Your task to perform on an android device: snooze an email in the gmail app Image 0: 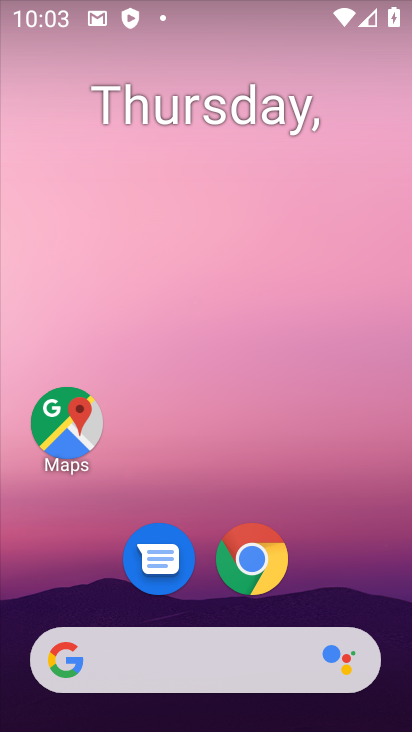
Step 0: drag from (263, 702) to (265, 316)
Your task to perform on an android device: snooze an email in the gmail app Image 1: 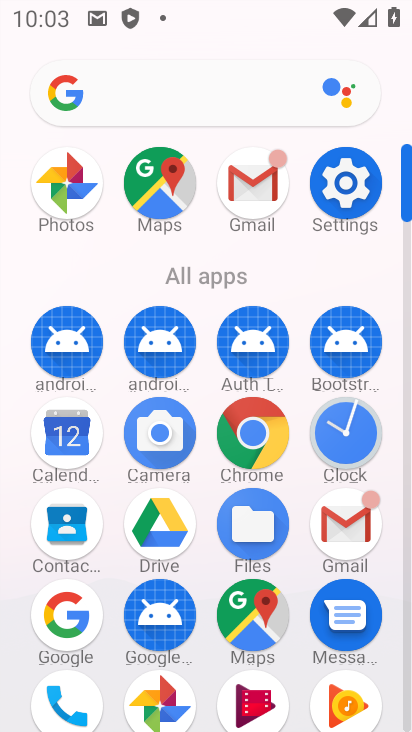
Step 1: click (343, 518)
Your task to perform on an android device: snooze an email in the gmail app Image 2: 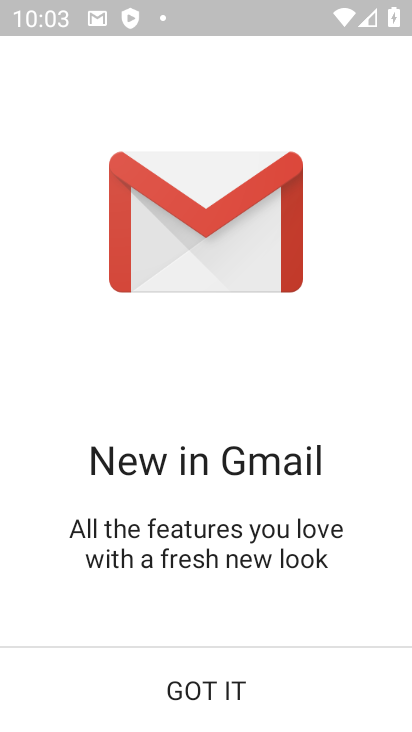
Step 2: click (215, 676)
Your task to perform on an android device: snooze an email in the gmail app Image 3: 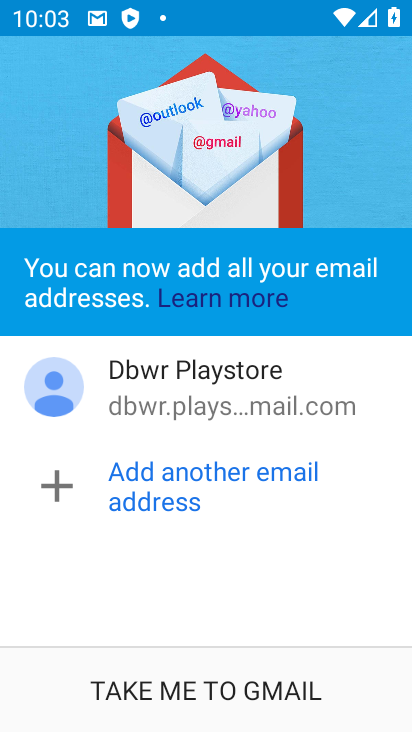
Step 3: click (206, 694)
Your task to perform on an android device: snooze an email in the gmail app Image 4: 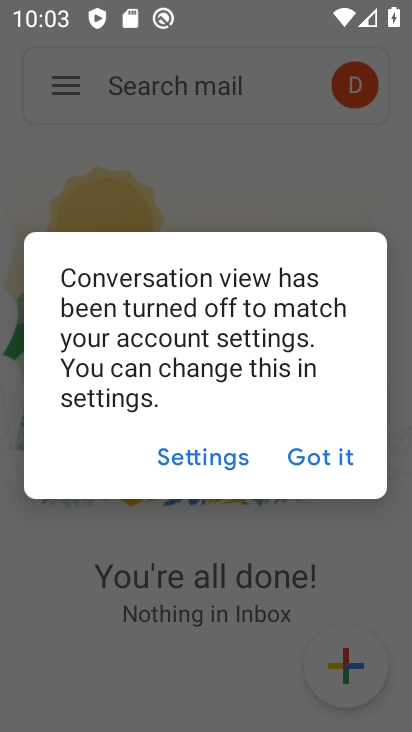
Step 4: click (322, 462)
Your task to perform on an android device: snooze an email in the gmail app Image 5: 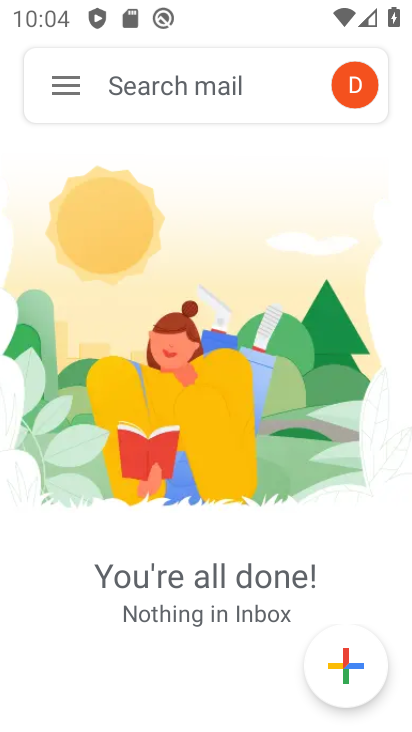
Step 5: click (69, 80)
Your task to perform on an android device: snooze an email in the gmail app Image 6: 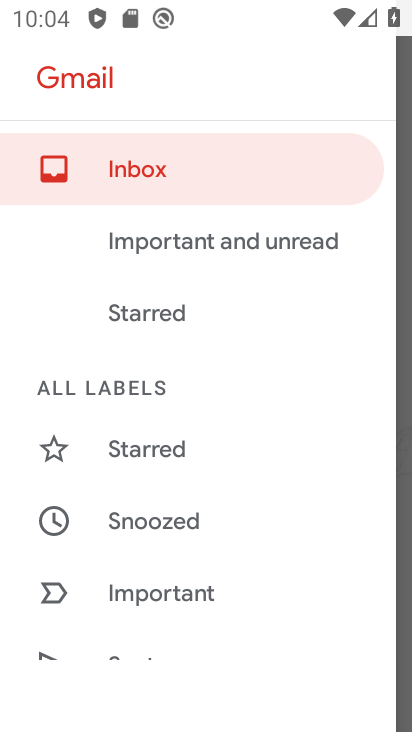
Step 6: click (174, 519)
Your task to perform on an android device: snooze an email in the gmail app Image 7: 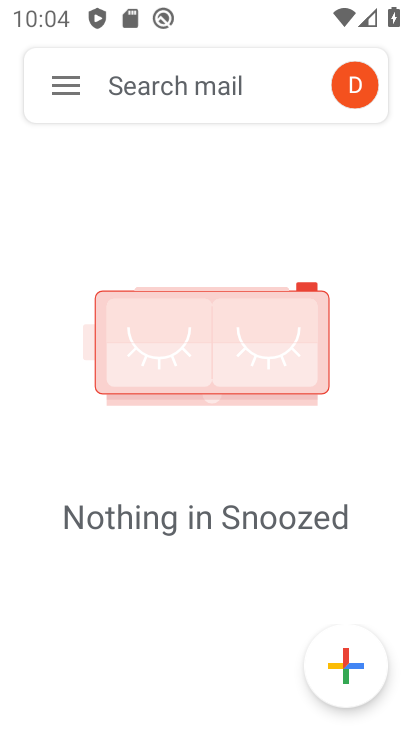
Step 7: task complete